Your task to perform on an android device: turn off location Image 0: 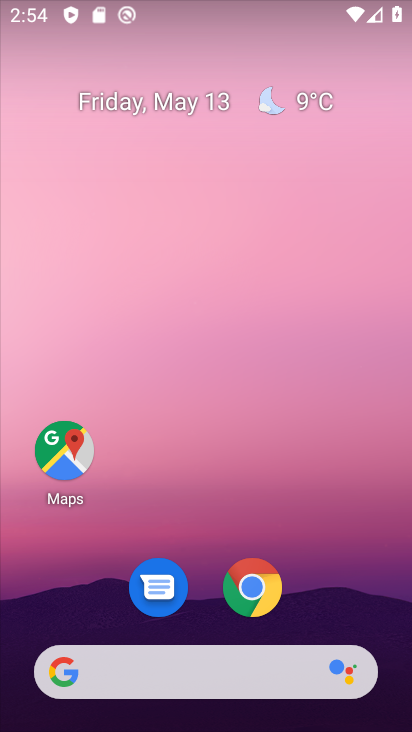
Step 0: drag from (349, 586) to (305, 128)
Your task to perform on an android device: turn off location Image 1: 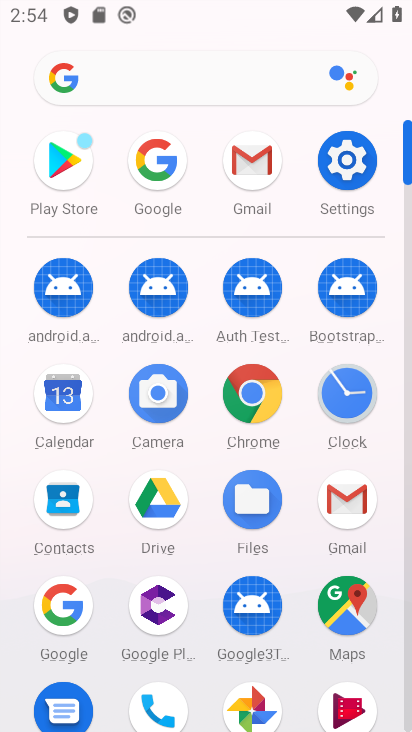
Step 1: click (351, 172)
Your task to perform on an android device: turn off location Image 2: 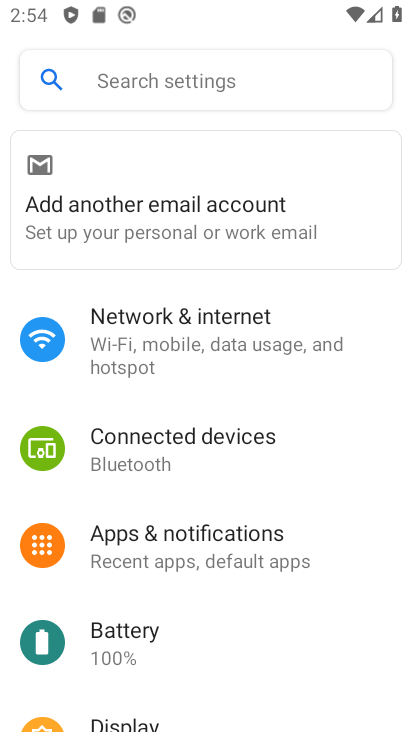
Step 2: drag from (257, 599) to (257, 158)
Your task to perform on an android device: turn off location Image 3: 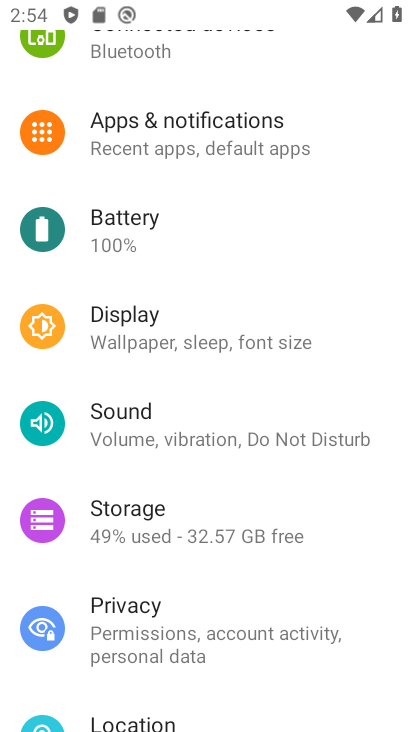
Step 3: drag from (233, 561) to (243, 248)
Your task to perform on an android device: turn off location Image 4: 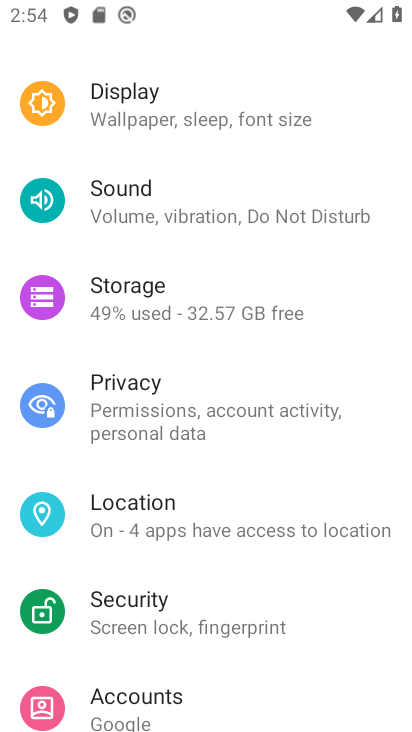
Step 4: click (222, 508)
Your task to perform on an android device: turn off location Image 5: 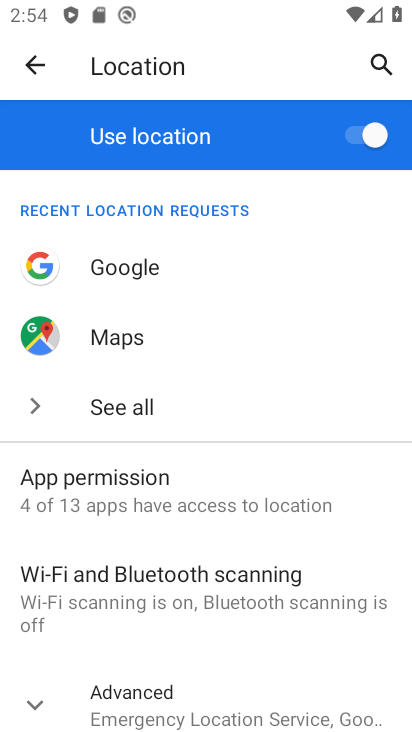
Step 5: click (363, 136)
Your task to perform on an android device: turn off location Image 6: 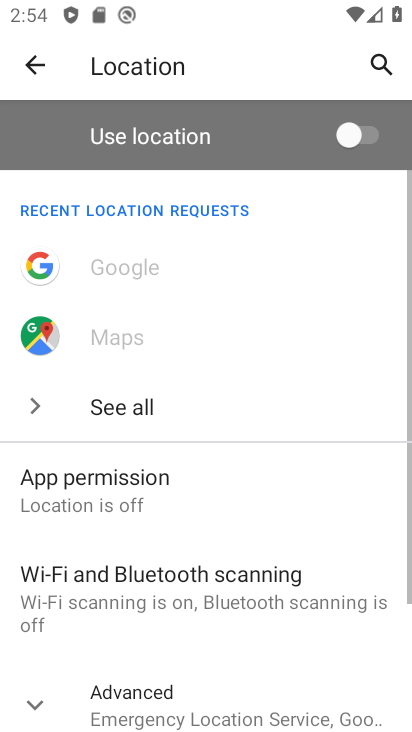
Step 6: task complete